Your task to perform on an android device: Go to internet settings Image 0: 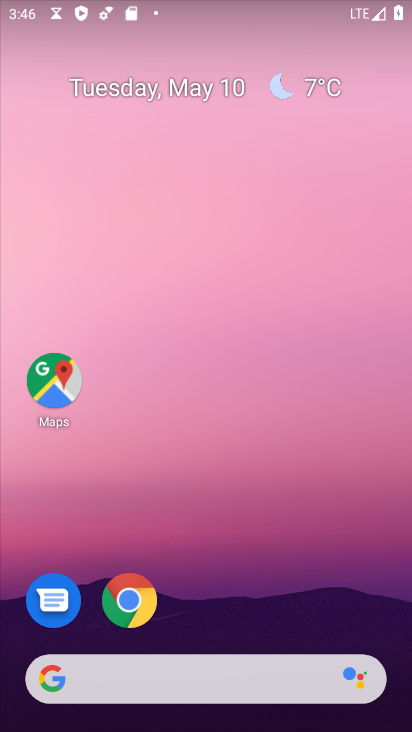
Step 0: drag from (349, 544) to (397, 187)
Your task to perform on an android device: Go to internet settings Image 1: 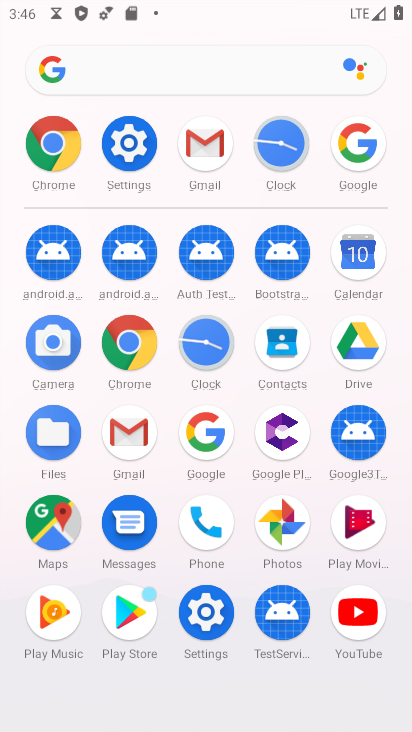
Step 1: click (135, 147)
Your task to perform on an android device: Go to internet settings Image 2: 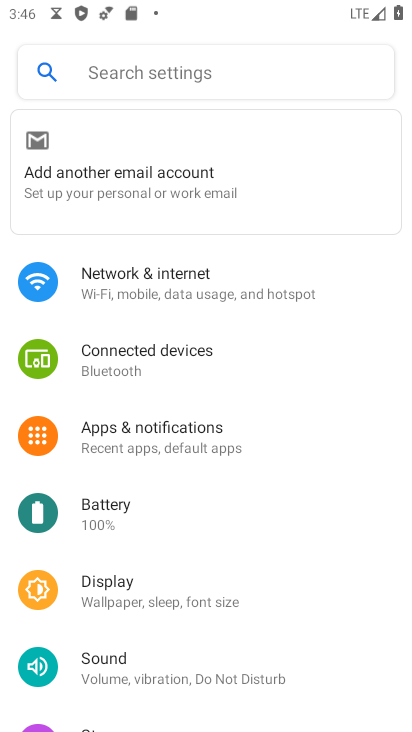
Step 2: click (137, 278)
Your task to perform on an android device: Go to internet settings Image 3: 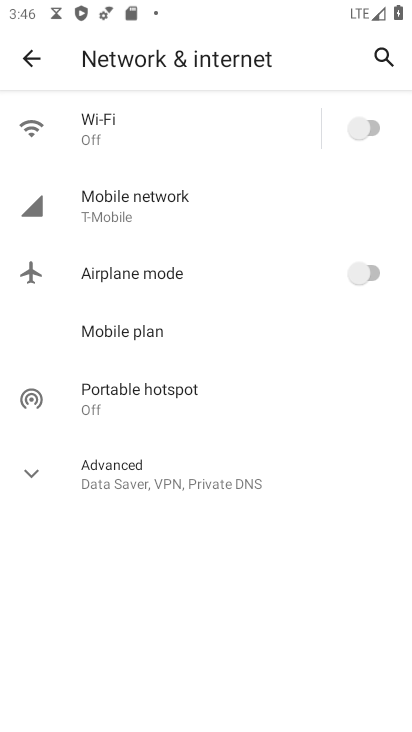
Step 3: task complete